Your task to perform on an android device: open a bookmark in the chrome app Image 0: 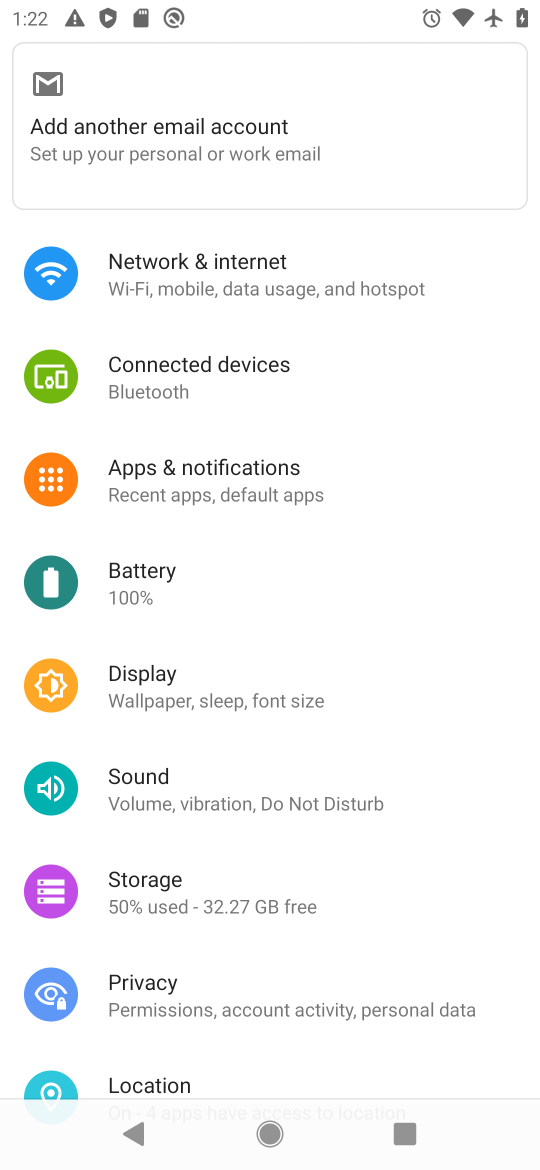
Step 0: press home button
Your task to perform on an android device: open a bookmark in the chrome app Image 1: 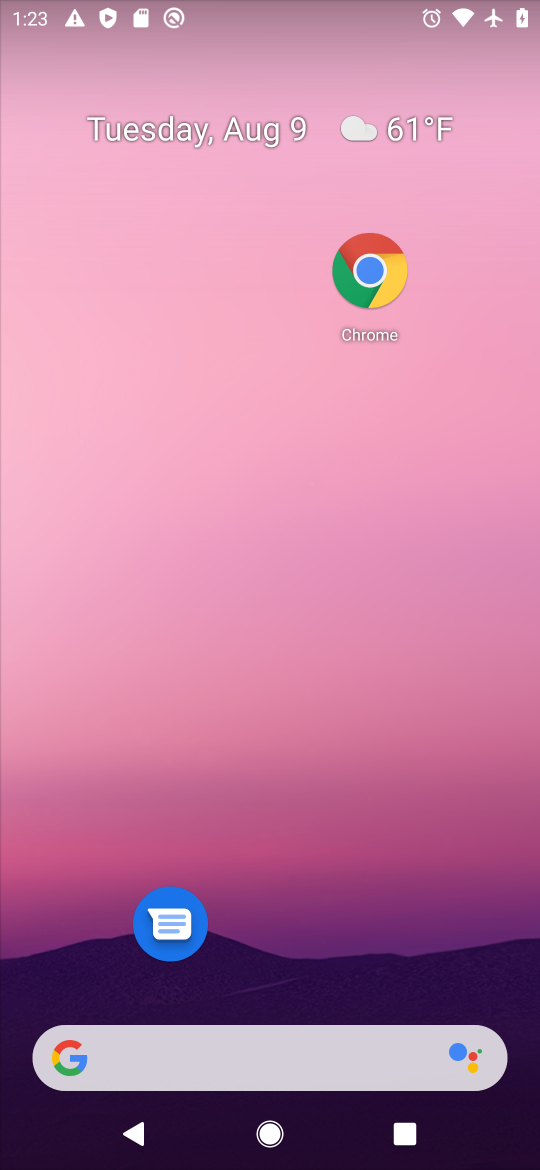
Step 1: task complete